Your task to perform on an android device: Open network settings Image 0: 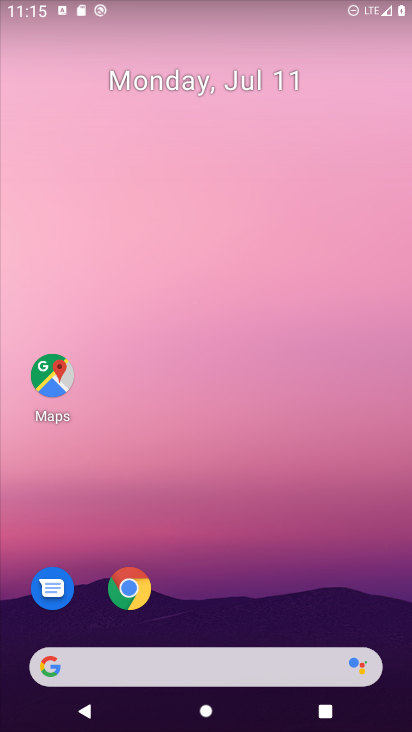
Step 0: drag from (394, 666) to (216, 135)
Your task to perform on an android device: Open network settings Image 1: 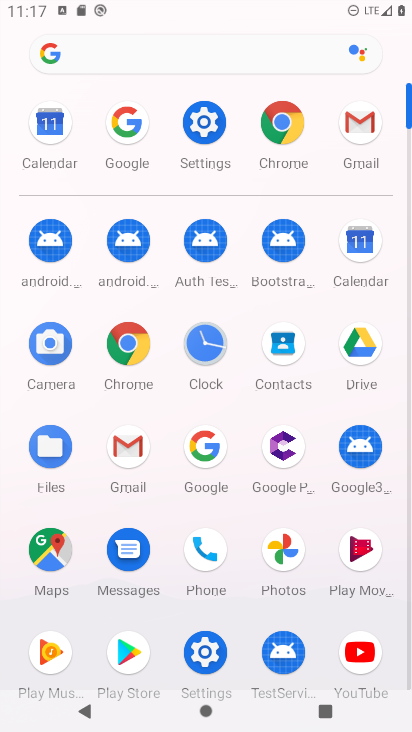
Step 1: click (215, 666)
Your task to perform on an android device: Open network settings Image 2: 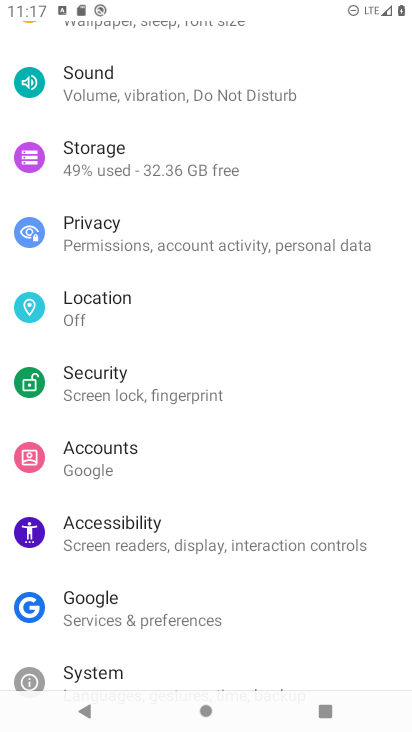
Step 2: drag from (160, 140) to (80, 714)
Your task to perform on an android device: Open network settings Image 3: 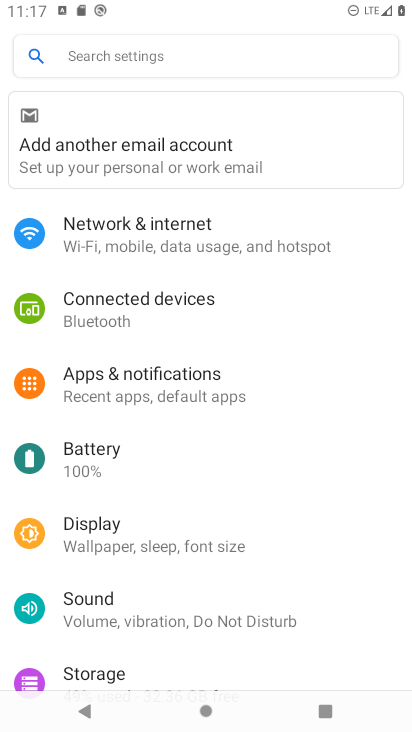
Step 3: click (147, 237)
Your task to perform on an android device: Open network settings Image 4: 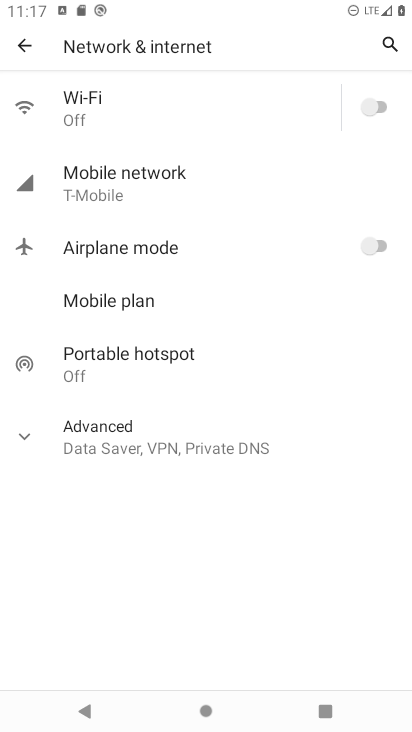
Step 4: task complete